Your task to perform on an android device: Is it going to rain today? Image 0: 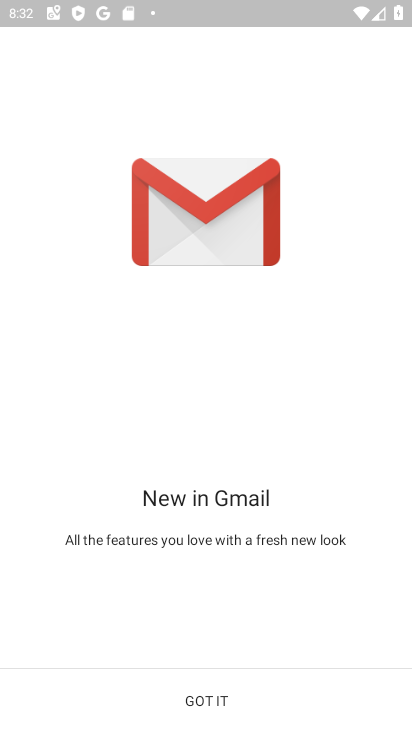
Step 0: press home button
Your task to perform on an android device: Is it going to rain today? Image 1: 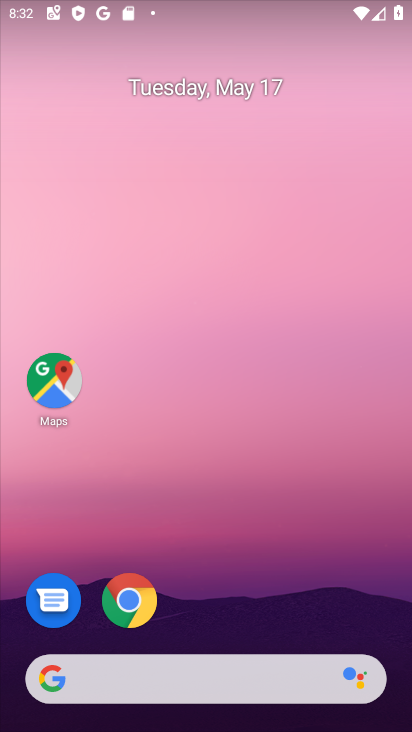
Step 1: drag from (226, 723) to (228, 243)
Your task to perform on an android device: Is it going to rain today? Image 2: 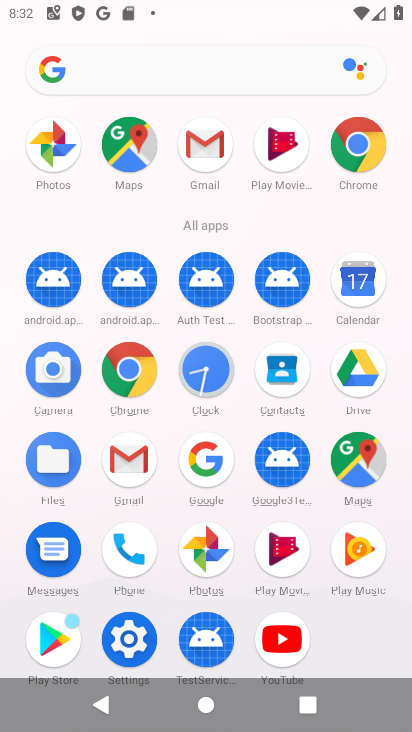
Step 2: click (206, 467)
Your task to perform on an android device: Is it going to rain today? Image 3: 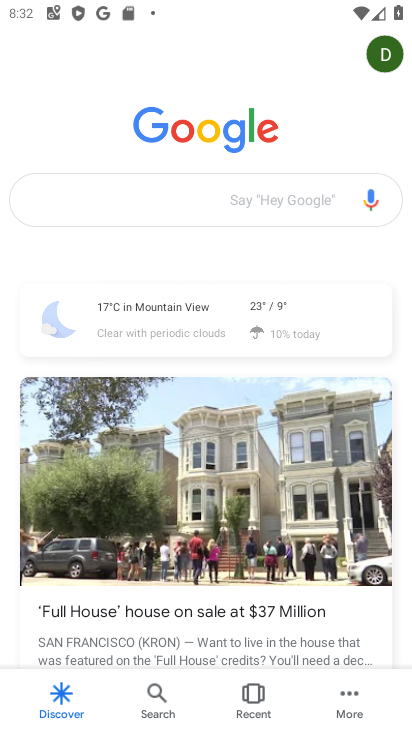
Step 3: click (179, 306)
Your task to perform on an android device: Is it going to rain today? Image 4: 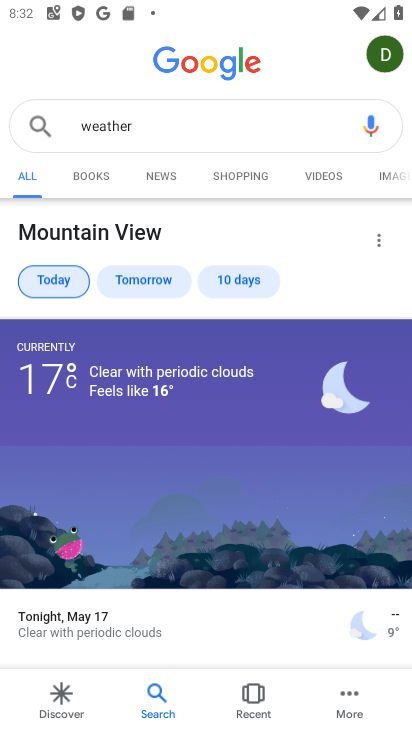
Step 4: click (59, 276)
Your task to perform on an android device: Is it going to rain today? Image 5: 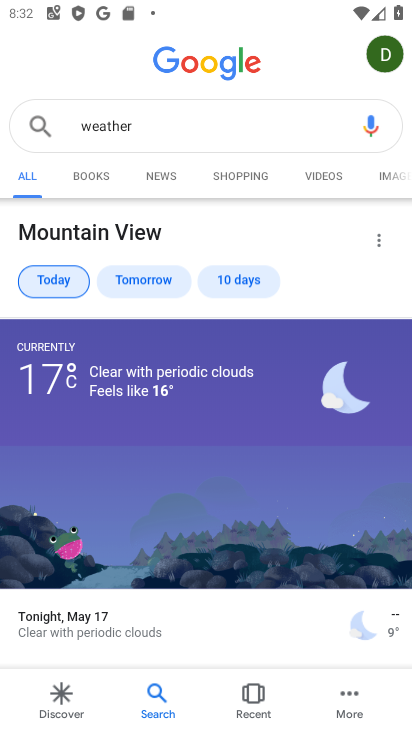
Step 5: click (59, 276)
Your task to perform on an android device: Is it going to rain today? Image 6: 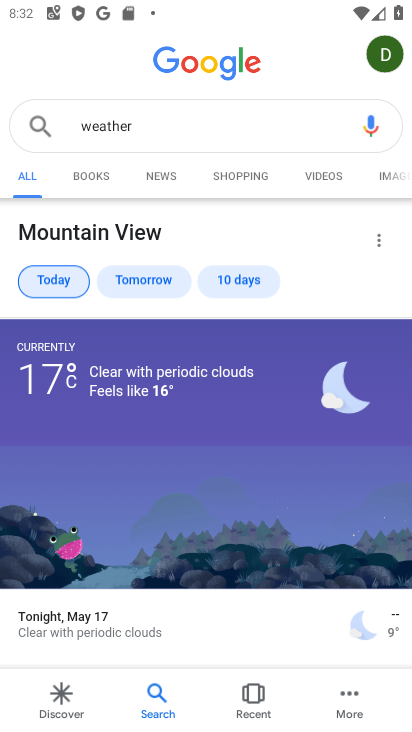
Step 6: task complete